Your task to perform on an android device: open app "Microsoft Authenticator" (install if not already installed) and go to login screen Image 0: 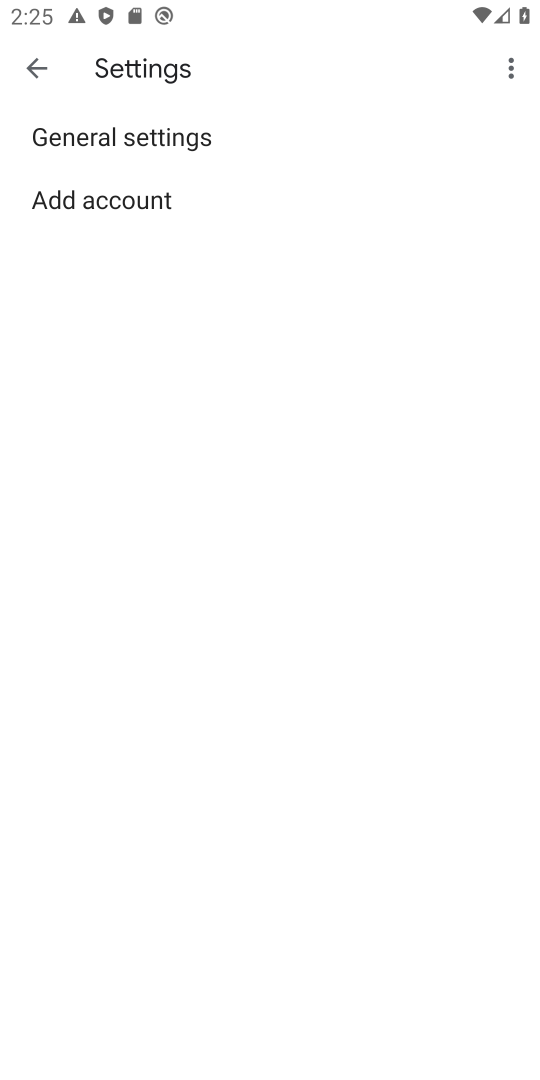
Step 0: press home button
Your task to perform on an android device: open app "Microsoft Authenticator" (install if not already installed) and go to login screen Image 1: 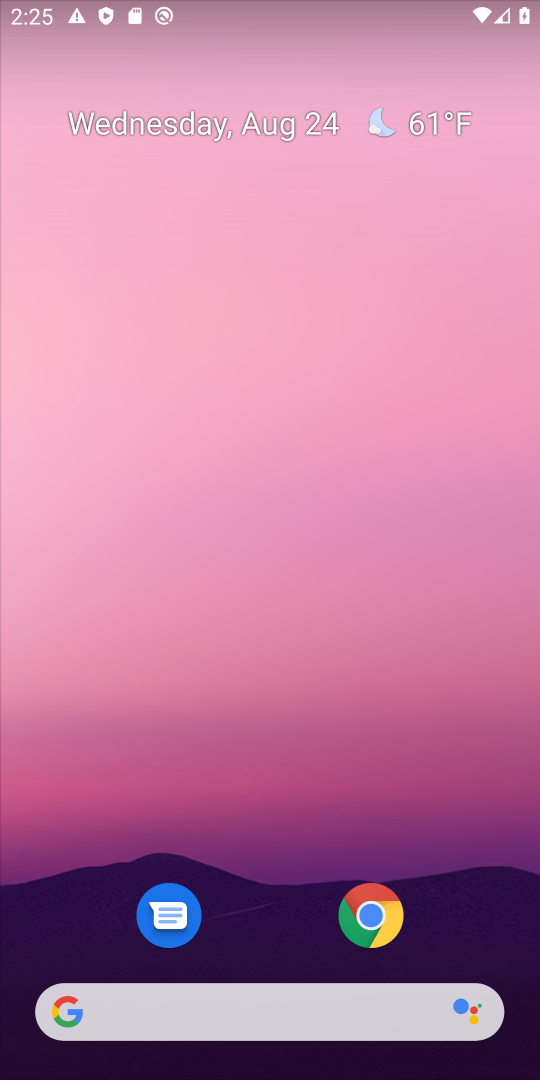
Step 1: drag from (253, 900) to (236, 244)
Your task to perform on an android device: open app "Microsoft Authenticator" (install if not already installed) and go to login screen Image 2: 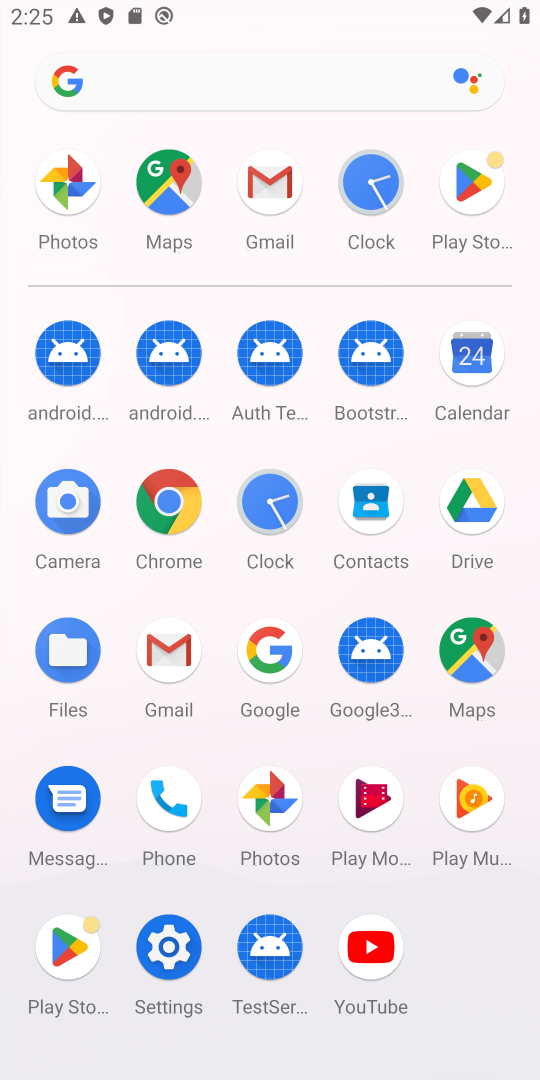
Step 2: click (474, 198)
Your task to perform on an android device: open app "Microsoft Authenticator" (install if not already installed) and go to login screen Image 3: 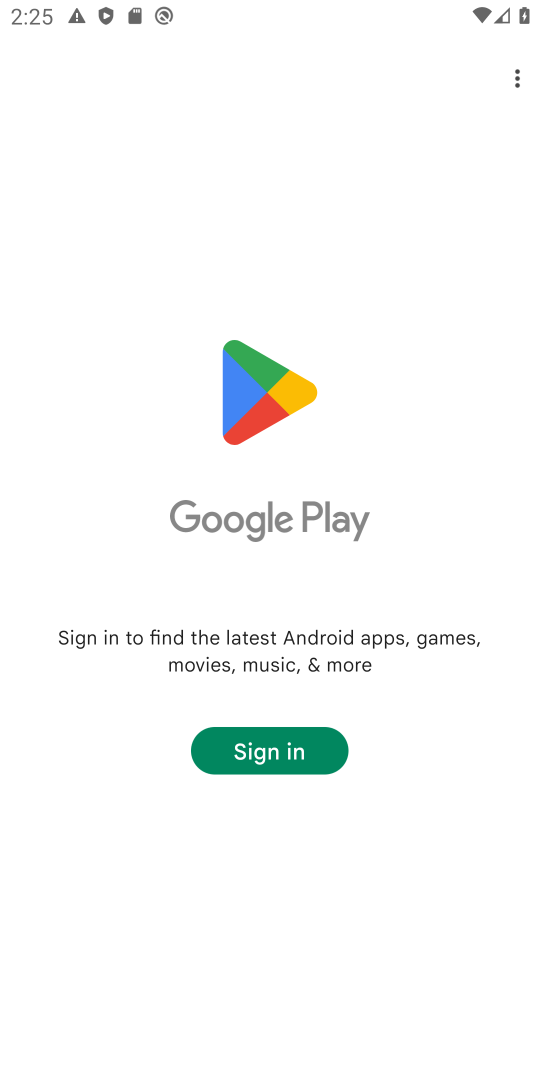
Step 3: task complete